Your task to perform on an android device: Go to internet settings Image 0: 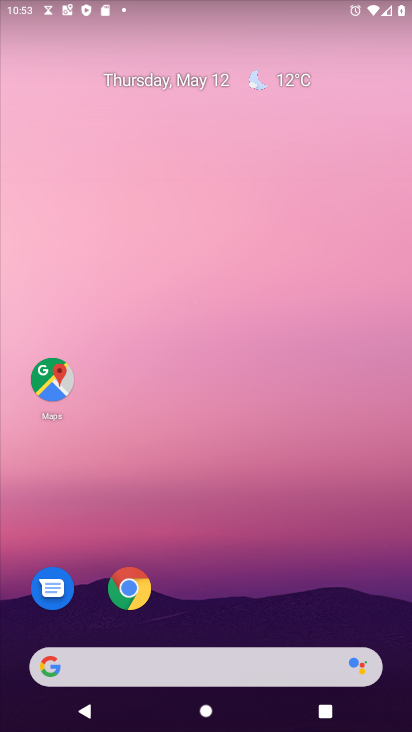
Step 0: drag from (251, 540) to (235, 60)
Your task to perform on an android device: Go to internet settings Image 1: 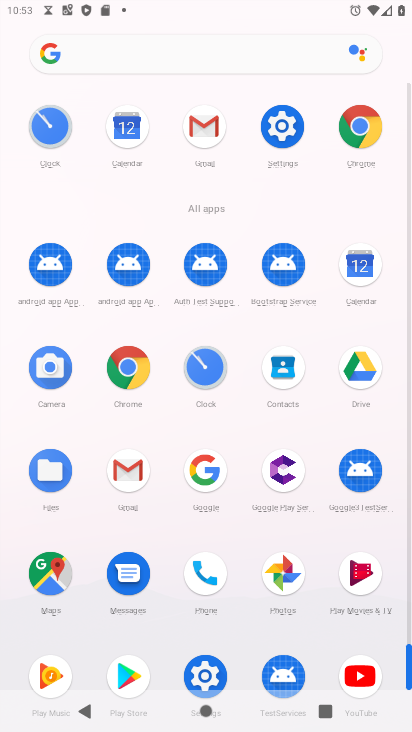
Step 1: click (281, 125)
Your task to perform on an android device: Go to internet settings Image 2: 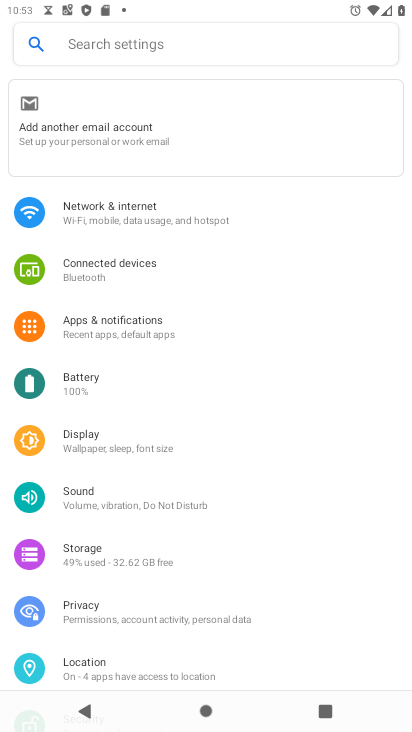
Step 2: click (116, 219)
Your task to perform on an android device: Go to internet settings Image 3: 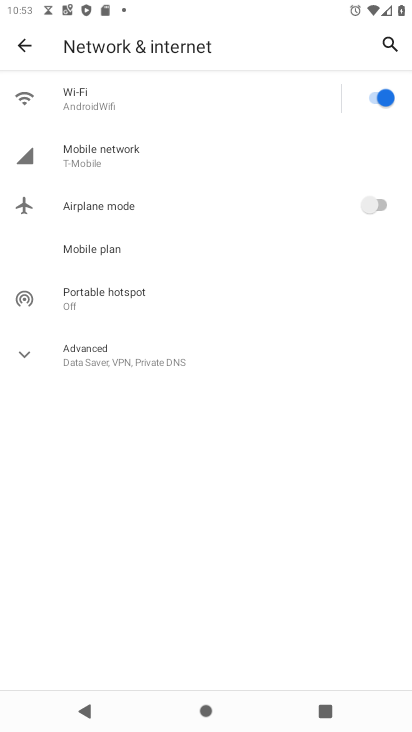
Step 3: task complete